Your task to perform on an android device: Open settings Image 0: 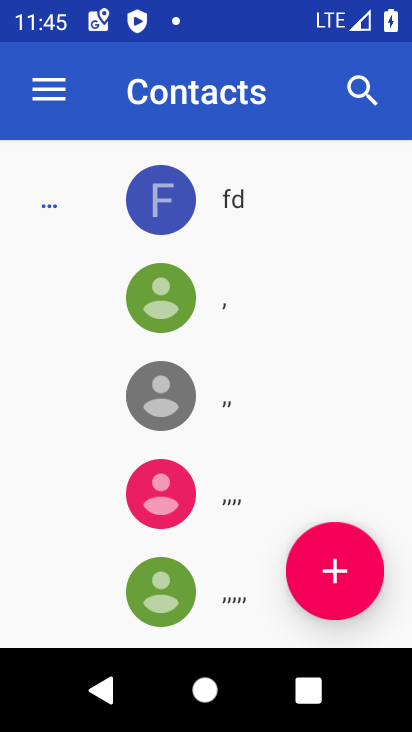
Step 0: press home button
Your task to perform on an android device: Open settings Image 1: 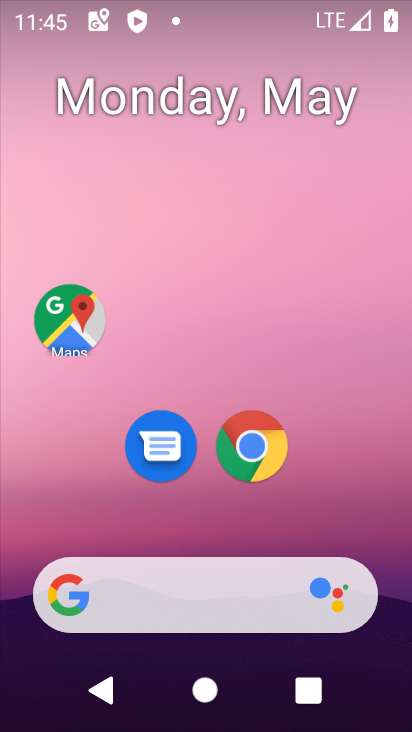
Step 1: drag from (339, 174) to (277, 32)
Your task to perform on an android device: Open settings Image 2: 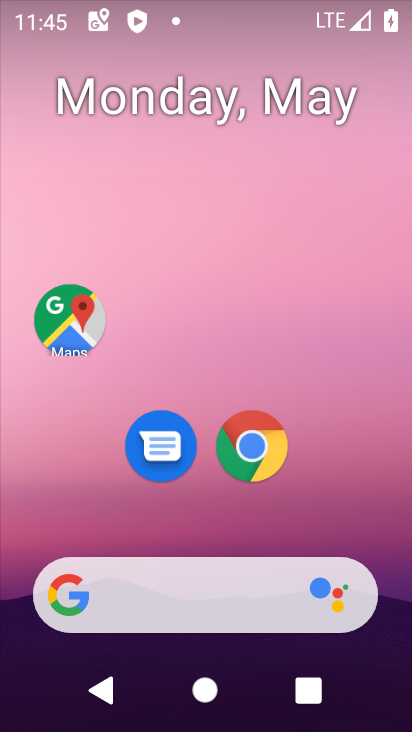
Step 2: drag from (354, 502) to (288, 0)
Your task to perform on an android device: Open settings Image 3: 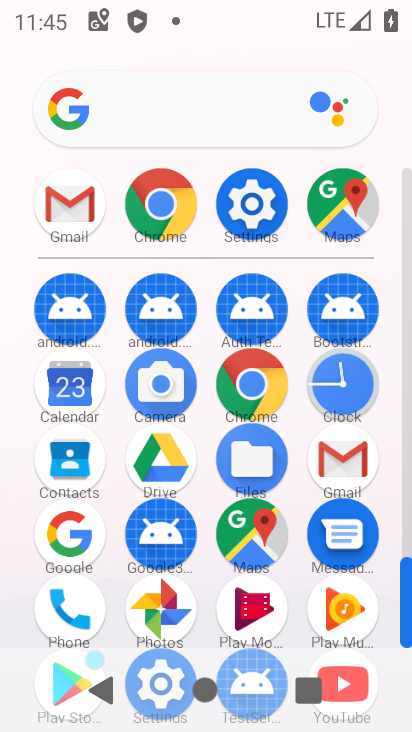
Step 3: click (256, 218)
Your task to perform on an android device: Open settings Image 4: 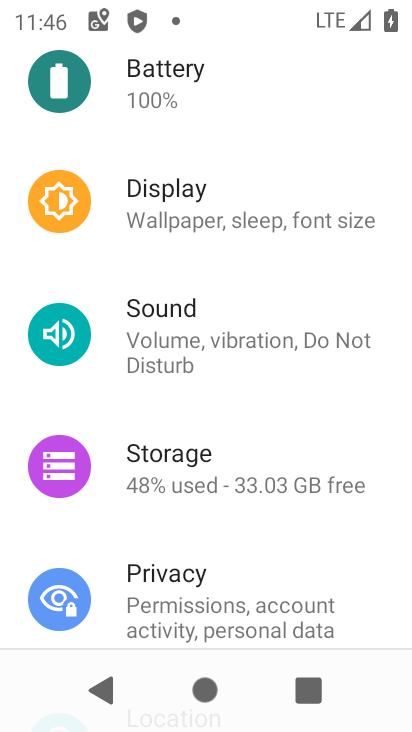
Step 4: task complete